Your task to perform on an android device: View the shopping cart on walmart. Image 0: 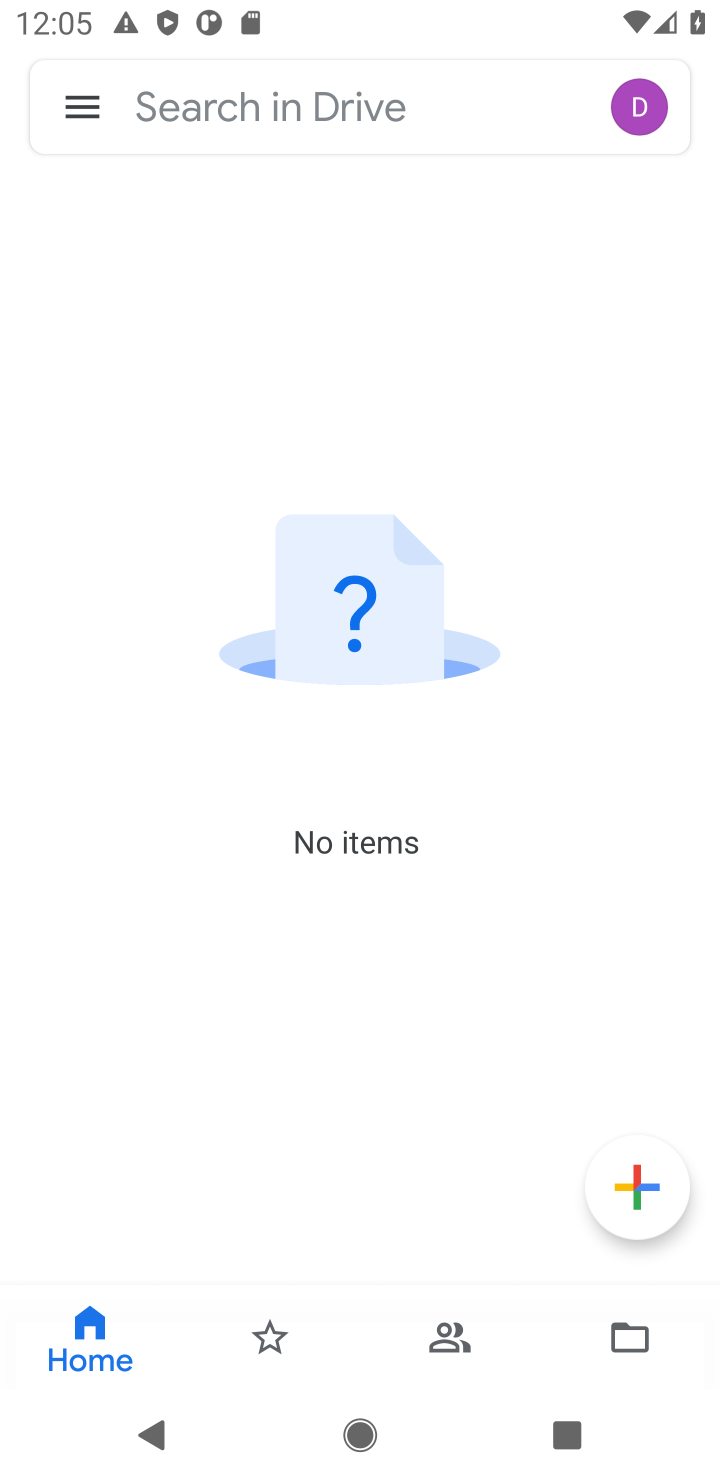
Step 0: press home button
Your task to perform on an android device: View the shopping cart on walmart. Image 1: 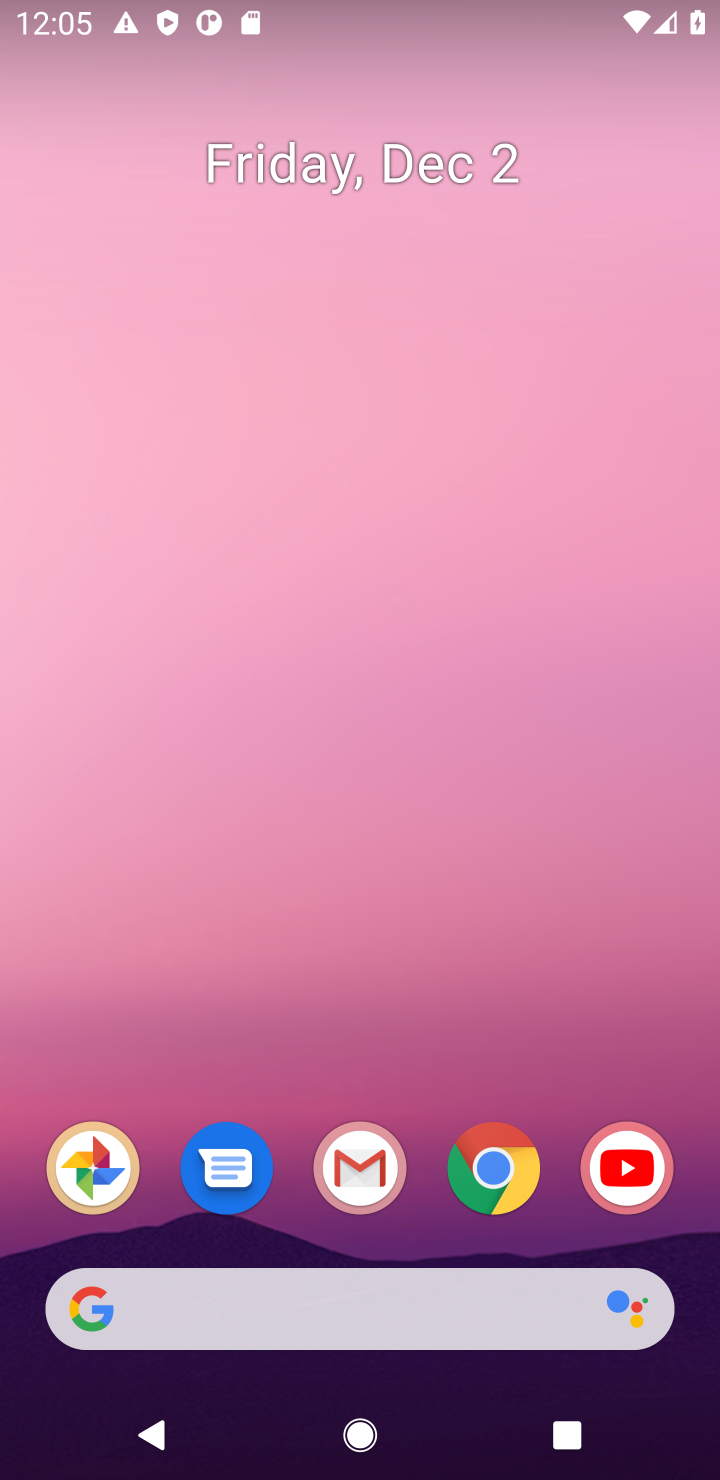
Step 1: click (491, 1182)
Your task to perform on an android device: View the shopping cart on walmart. Image 2: 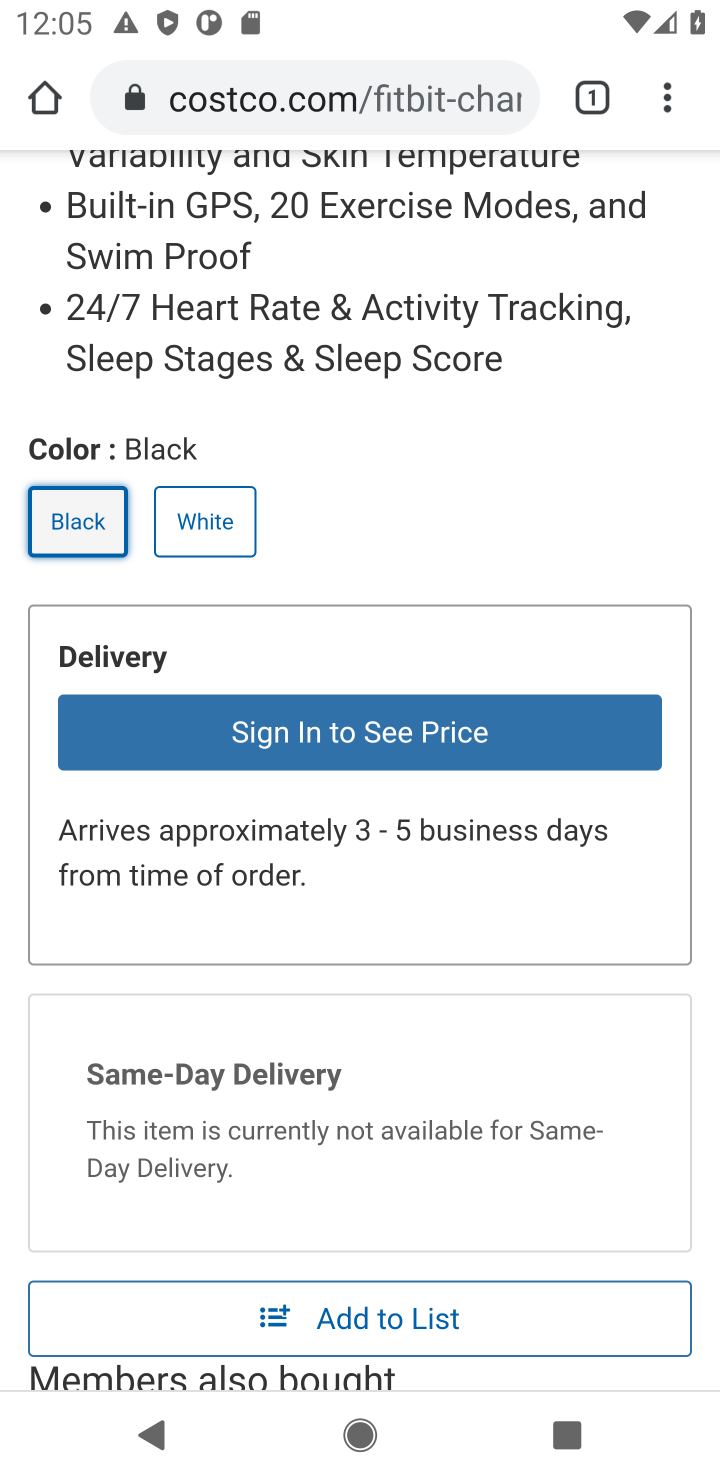
Step 2: click (337, 84)
Your task to perform on an android device: View the shopping cart on walmart. Image 3: 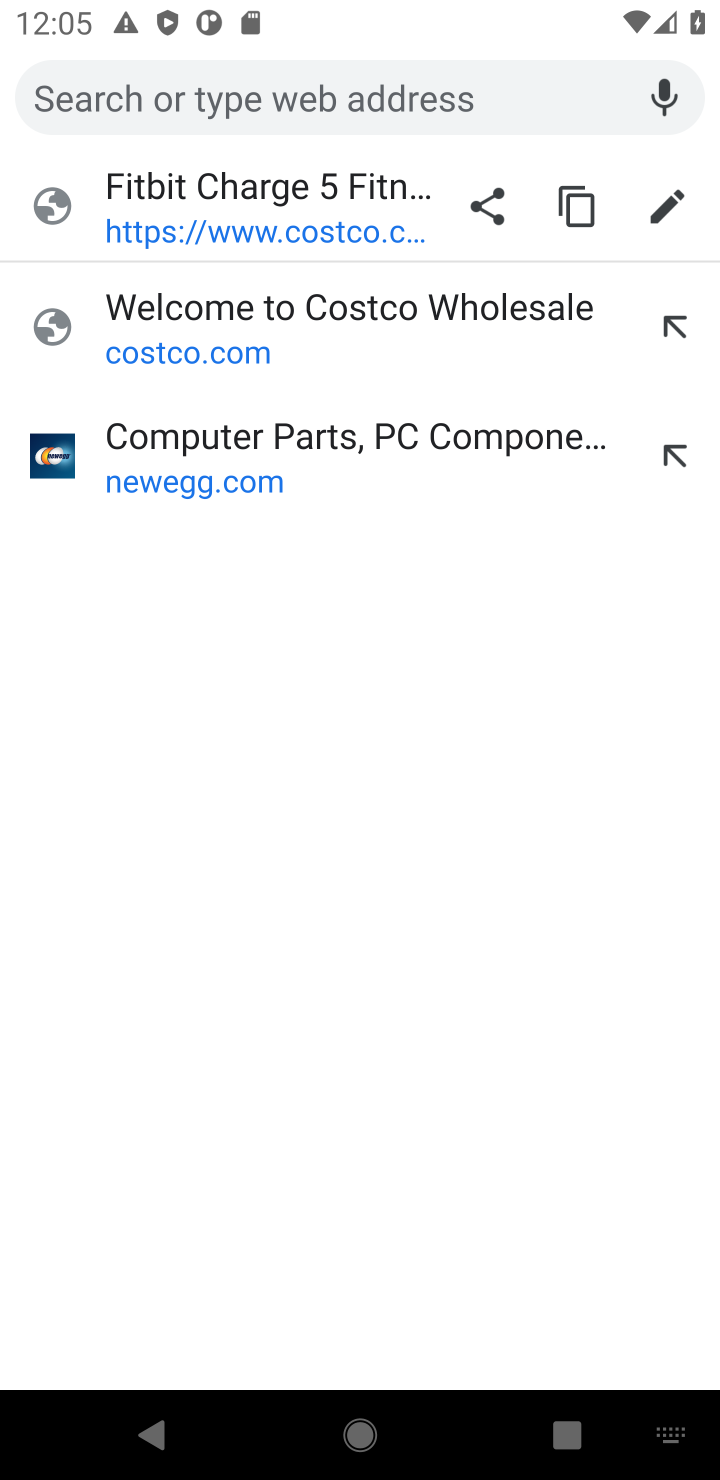
Step 3: type "walmart"
Your task to perform on an android device: View the shopping cart on walmart. Image 4: 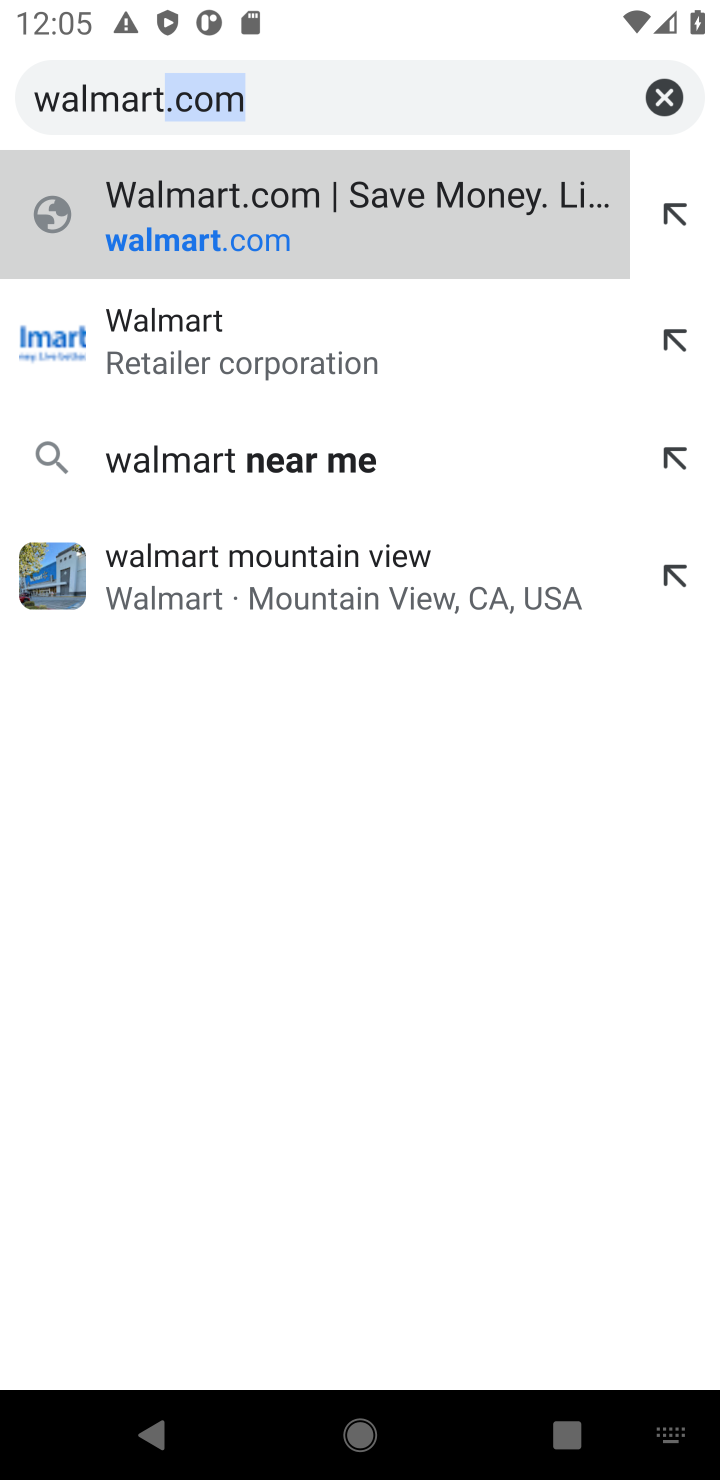
Step 4: click (202, 210)
Your task to perform on an android device: View the shopping cart on walmart. Image 5: 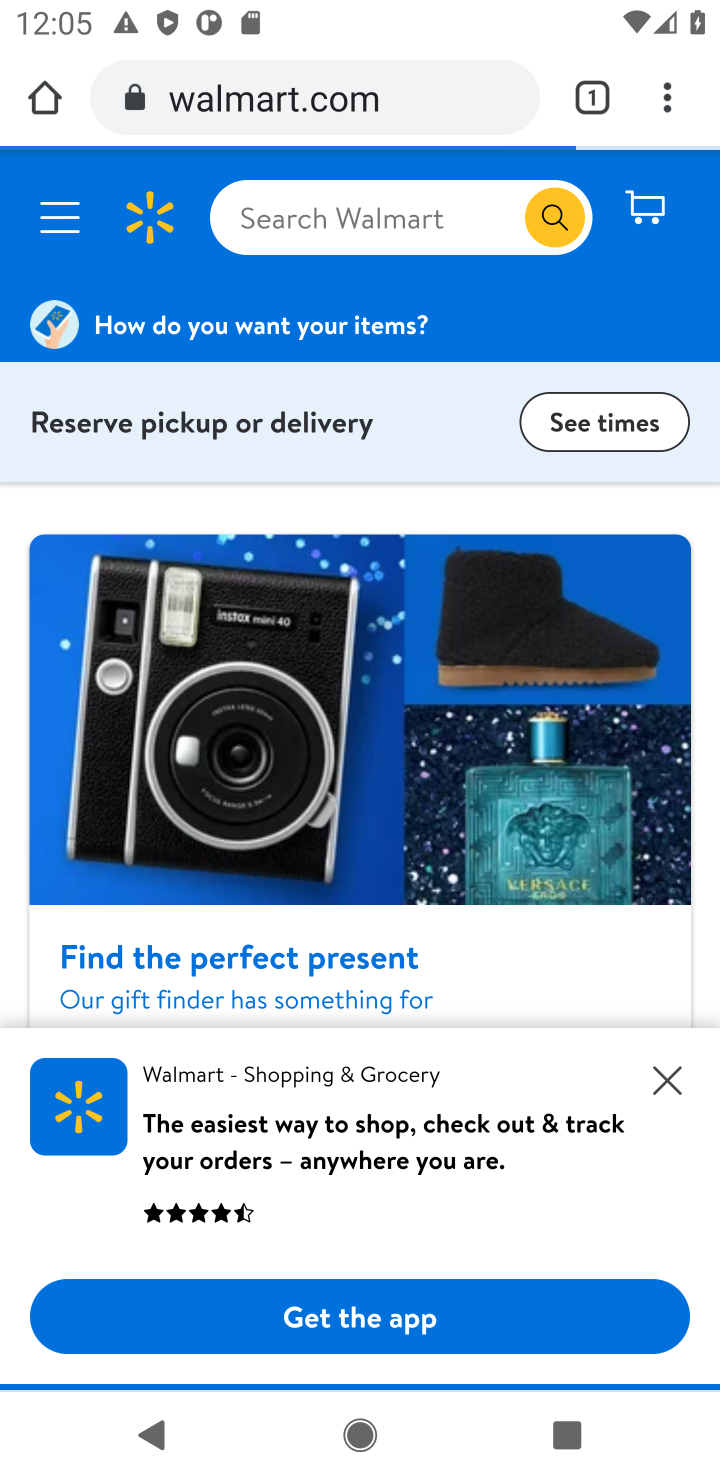
Step 5: click (382, 220)
Your task to perform on an android device: View the shopping cart on walmart. Image 6: 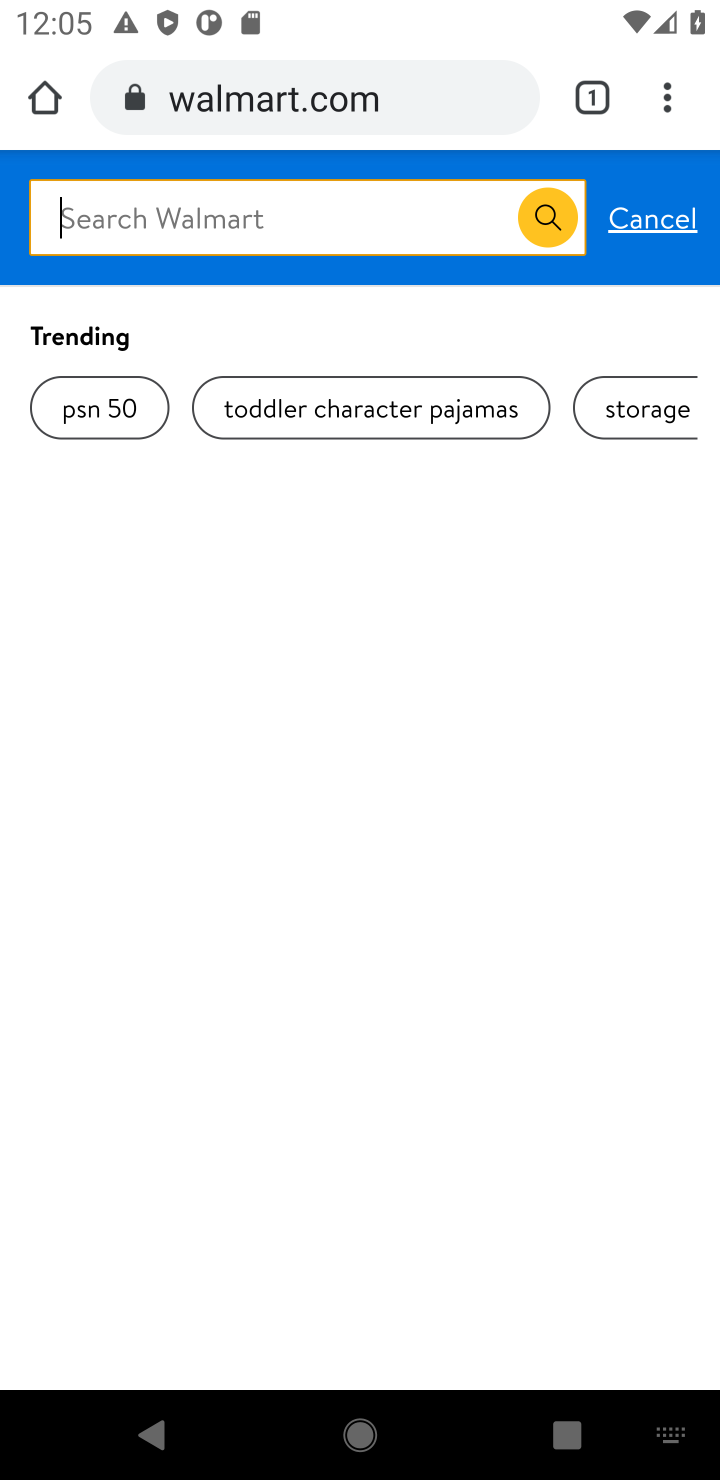
Step 6: task complete